Your task to perform on an android device: toggle improve location accuracy Image 0: 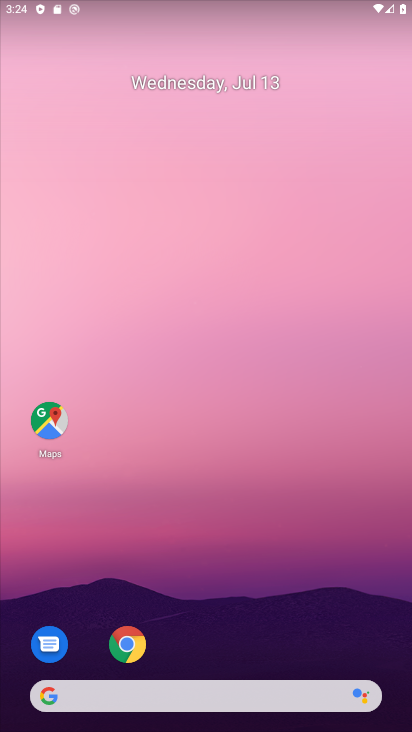
Step 0: drag from (236, 648) to (236, 187)
Your task to perform on an android device: toggle improve location accuracy Image 1: 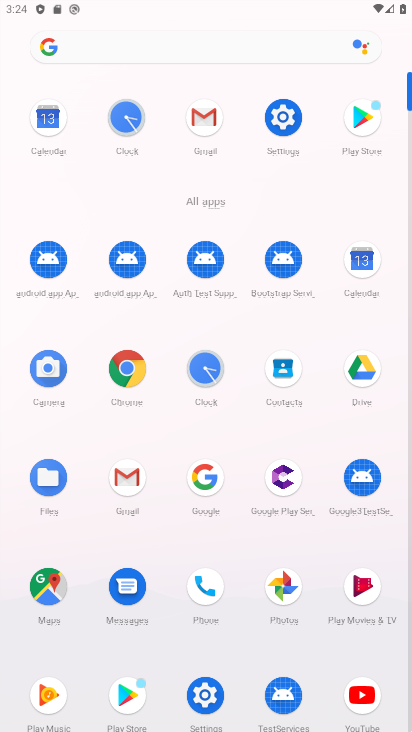
Step 1: click (289, 120)
Your task to perform on an android device: toggle improve location accuracy Image 2: 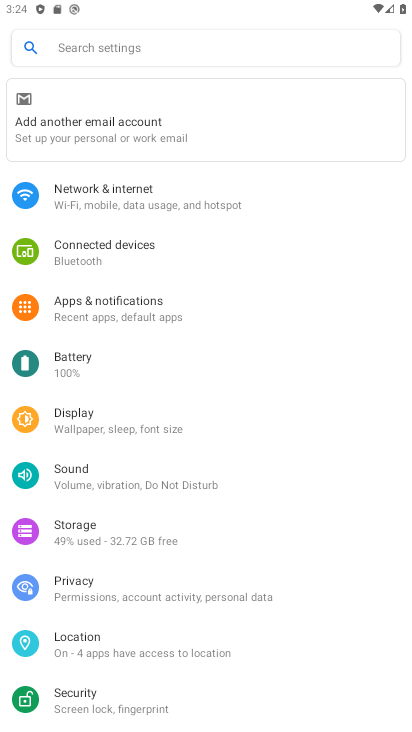
Step 2: click (119, 641)
Your task to perform on an android device: toggle improve location accuracy Image 3: 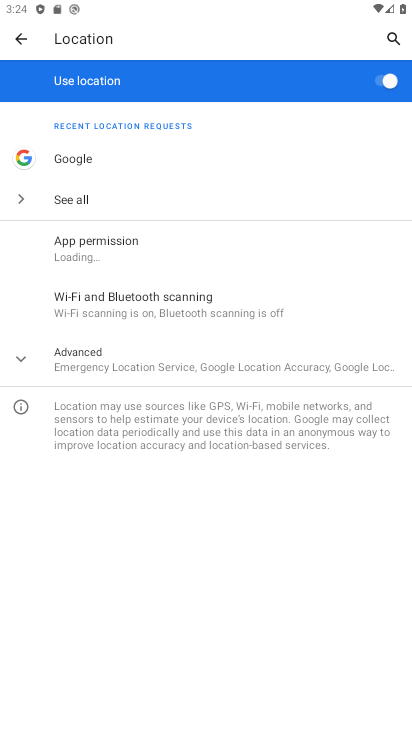
Step 3: click (123, 353)
Your task to perform on an android device: toggle improve location accuracy Image 4: 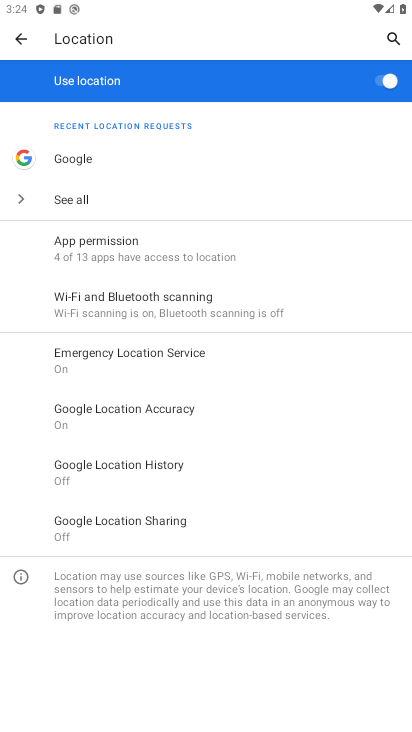
Step 4: click (189, 415)
Your task to perform on an android device: toggle improve location accuracy Image 5: 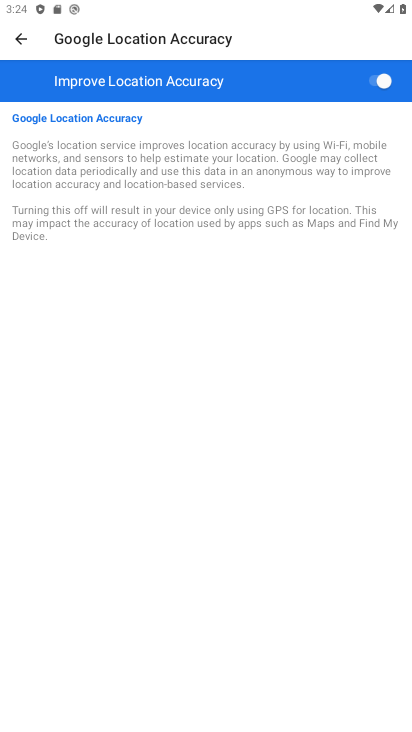
Step 5: click (371, 76)
Your task to perform on an android device: toggle improve location accuracy Image 6: 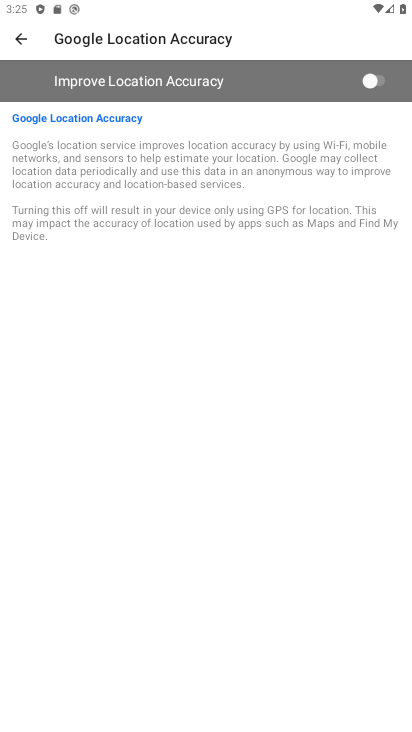
Step 6: task complete